Your task to perform on an android device: toggle notification dots Image 0: 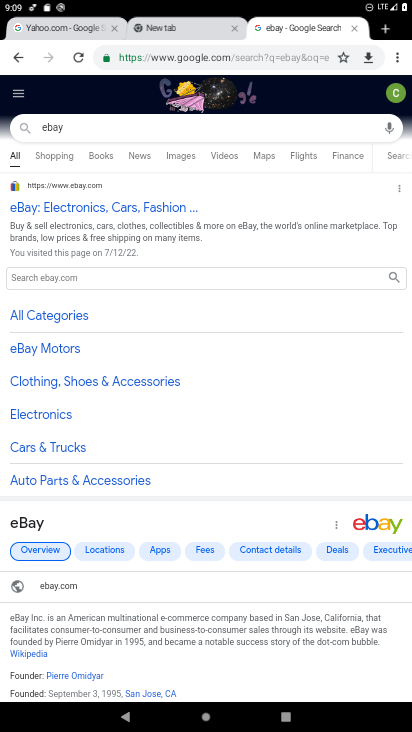
Step 0: press home button
Your task to perform on an android device: toggle notification dots Image 1: 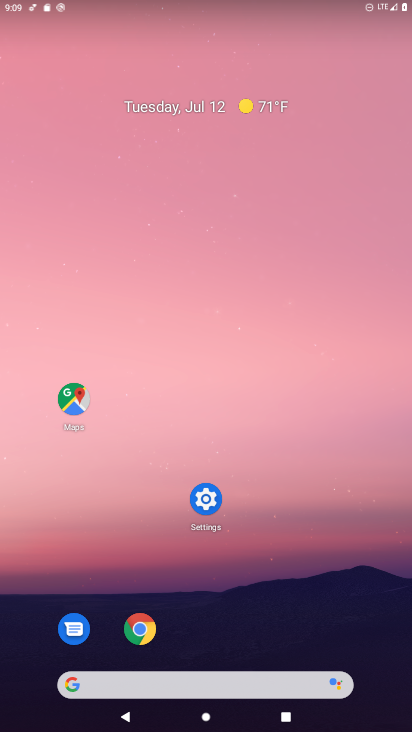
Step 1: drag from (395, 719) to (356, 317)
Your task to perform on an android device: toggle notification dots Image 2: 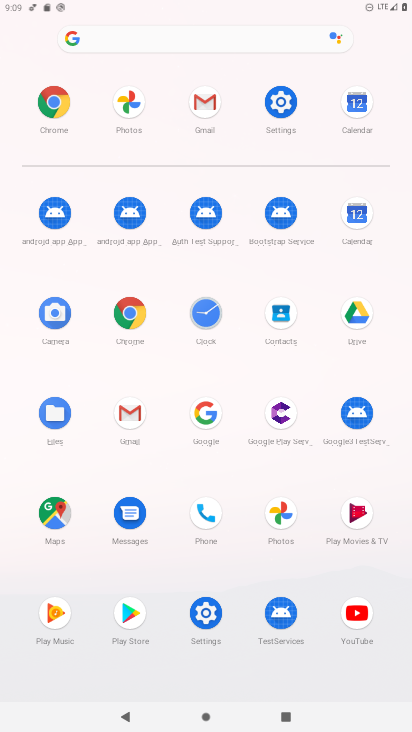
Step 2: click (281, 107)
Your task to perform on an android device: toggle notification dots Image 3: 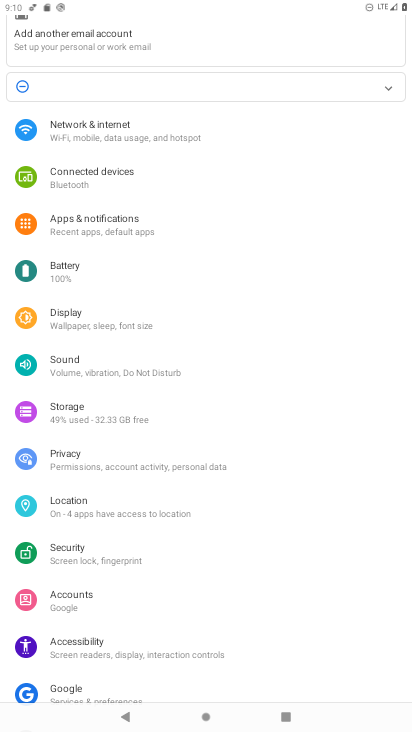
Step 3: click (77, 229)
Your task to perform on an android device: toggle notification dots Image 4: 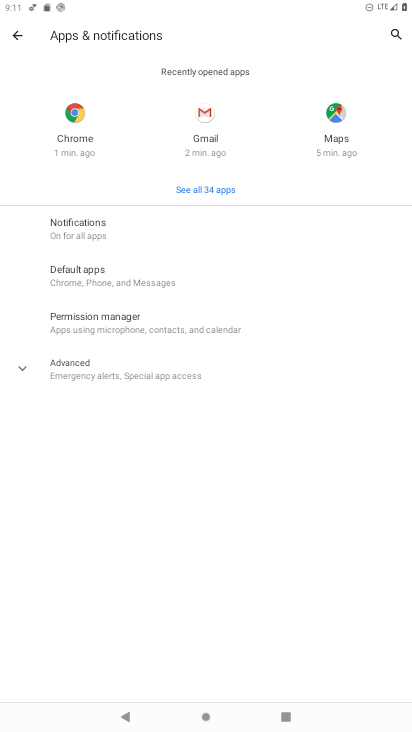
Step 4: click (69, 229)
Your task to perform on an android device: toggle notification dots Image 5: 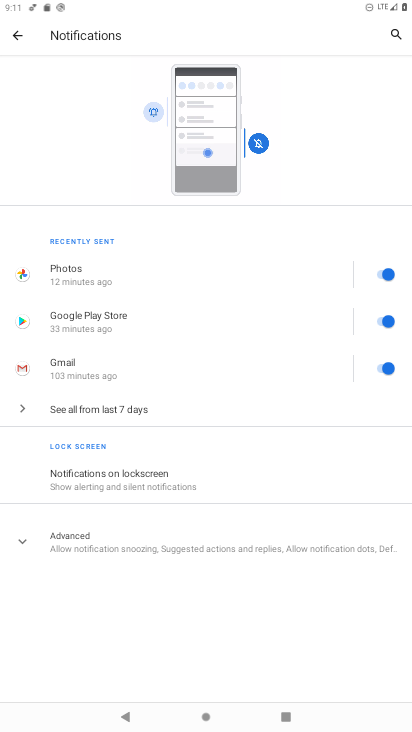
Step 5: click (381, 271)
Your task to perform on an android device: toggle notification dots Image 6: 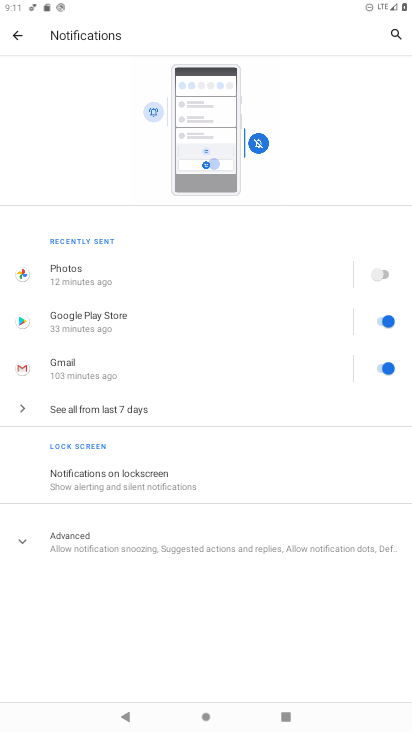
Step 6: click (381, 325)
Your task to perform on an android device: toggle notification dots Image 7: 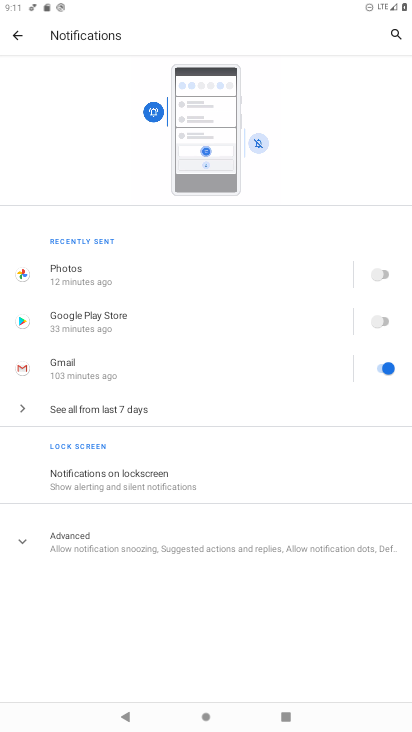
Step 7: click (380, 363)
Your task to perform on an android device: toggle notification dots Image 8: 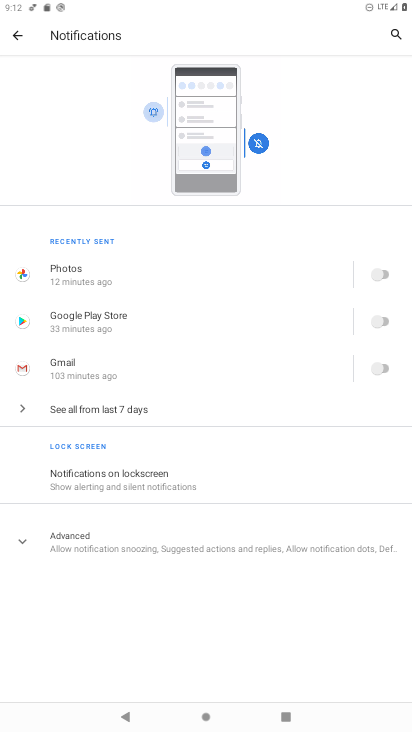
Step 8: task complete